Your task to perform on an android device: delete browsing data in the chrome app Image 0: 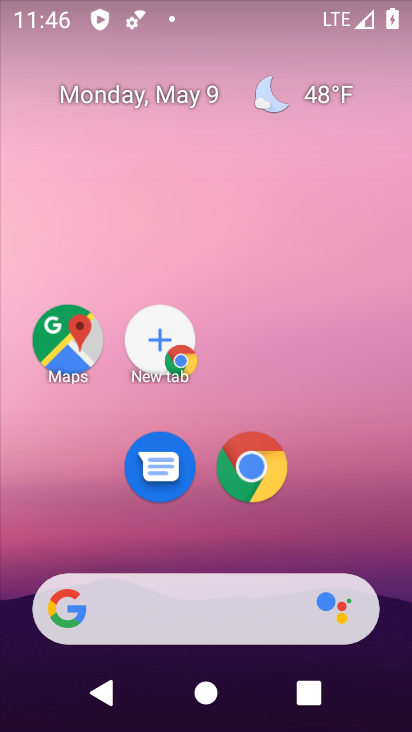
Step 0: drag from (385, 556) to (208, 157)
Your task to perform on an android device: delete browsing data in the chrome app Image 1: 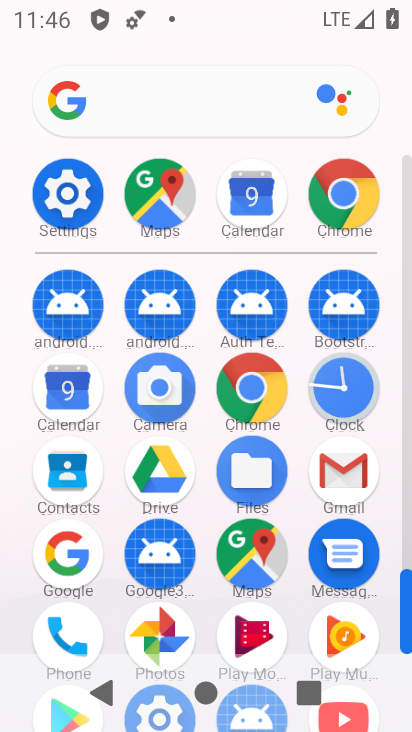
Step 1: click (336, 199)
Your task to perform on an android device: delete browsing data in the chrome app Image 2: 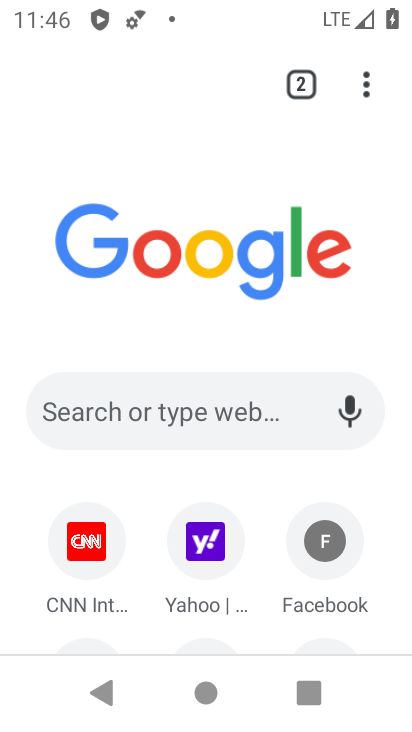
Step 2: click (363, 87)
Your task to perform on an android device: delete browsing data in the chrome app Image 3: 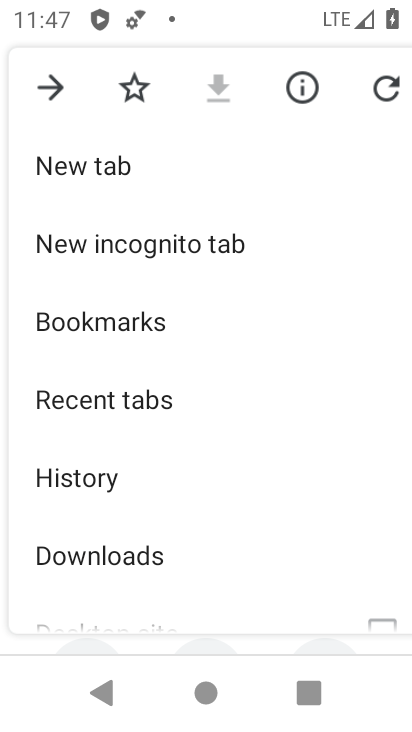
Step 3: drag from (182, 514) to (201, 173)
Your task to perform on an android device: delete browsing data in the chrome app Image 4: 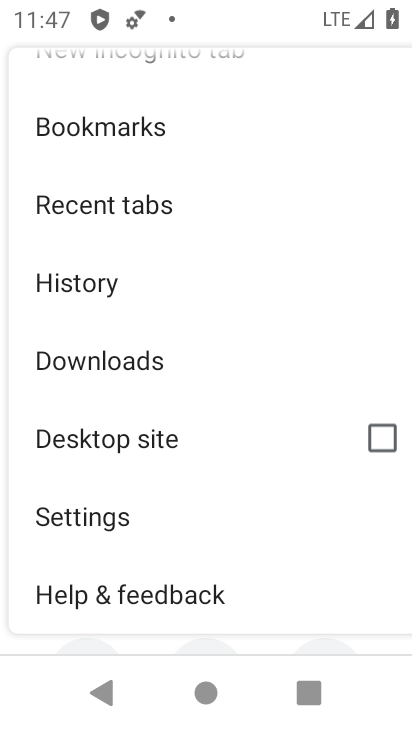
Step 4: click (84, 285)
Your task to perform on an android device: delete browsing data in the chrome app Image 5: 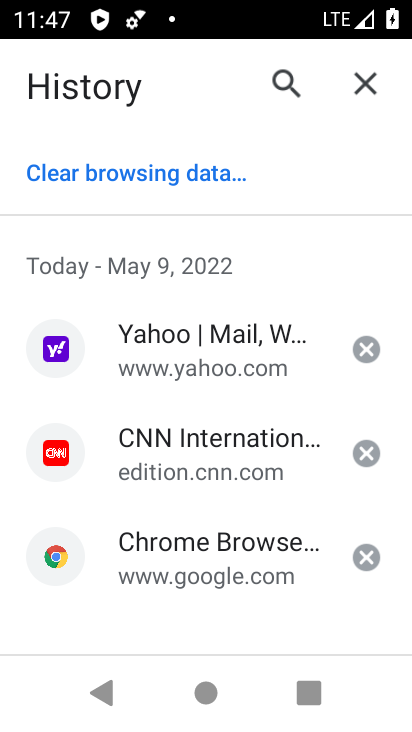
Step 5: click (362, 339)
Your task to perform on an android device: delete browsing data in the chrome app Image 6: 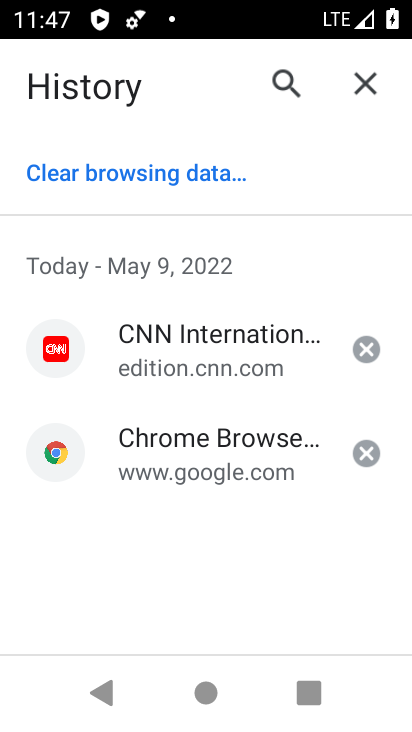
Step 6: task complete